Your task to perform on an android device: What is the news today? Image 0: 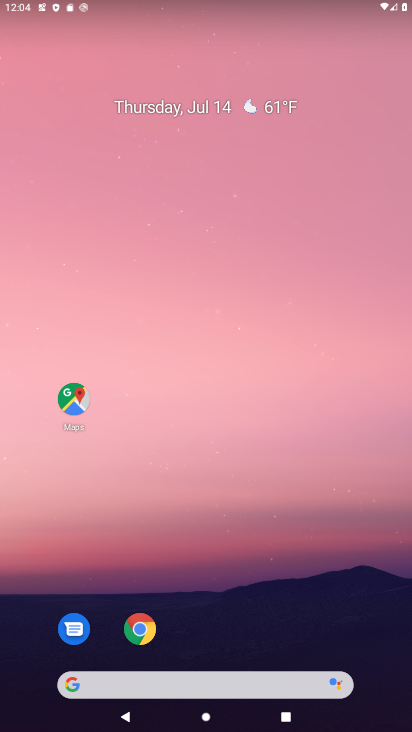
Step 0: click (249, 562)
Your task to perform on an android device: What is the news today? Image 1: 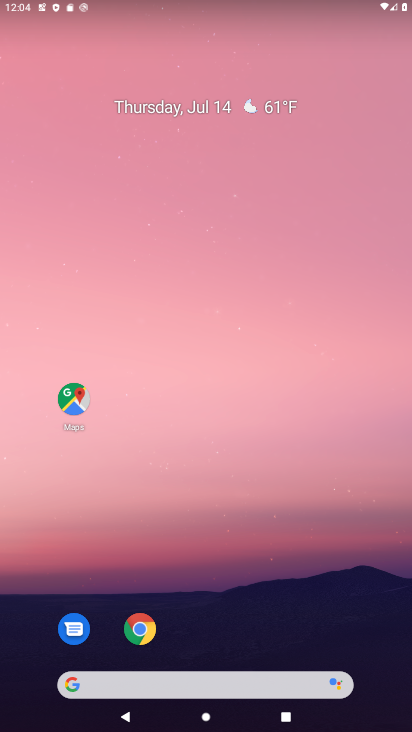
Step 1: drag from (20, 284) to (339, 291)
Your task to perform on an android device: What is the news today? Image 2: 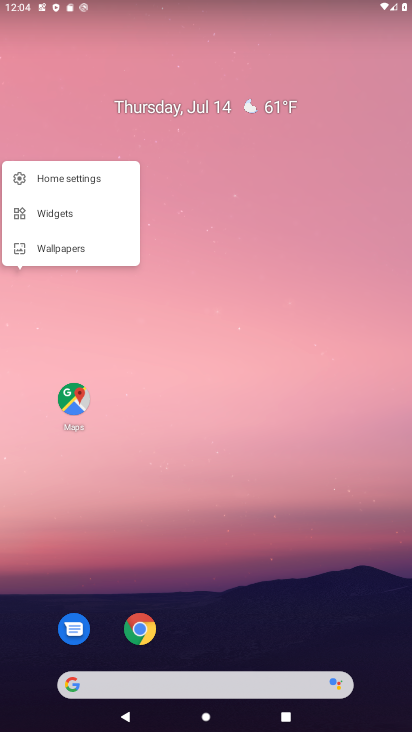
Step 2: click (194, 387)
Your task to perform on an android device: What is the news today? Image 3: 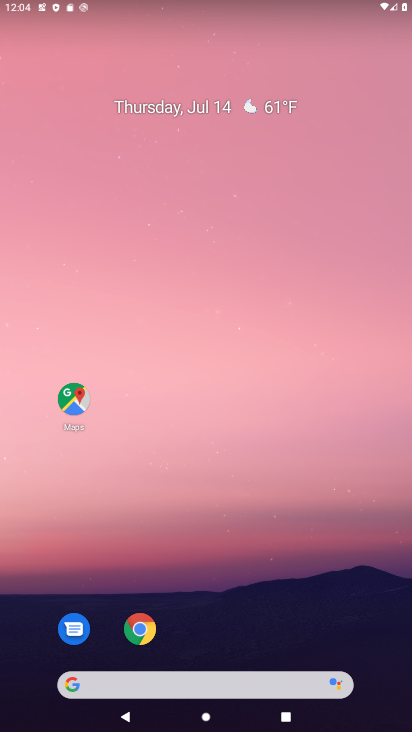
Step 3: drag from (12, 269) to (408, 266)
Your task to perform on an android device: What is the news today? Image 4: 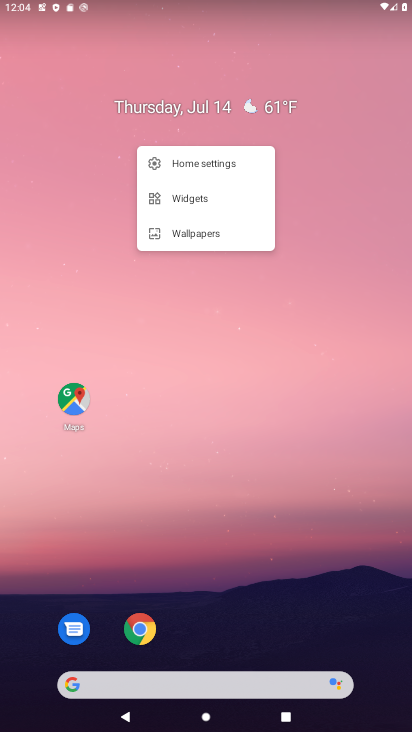
Step 4: click (253, 285)
Your task to perform on an android device: What is the news today? Image 5: 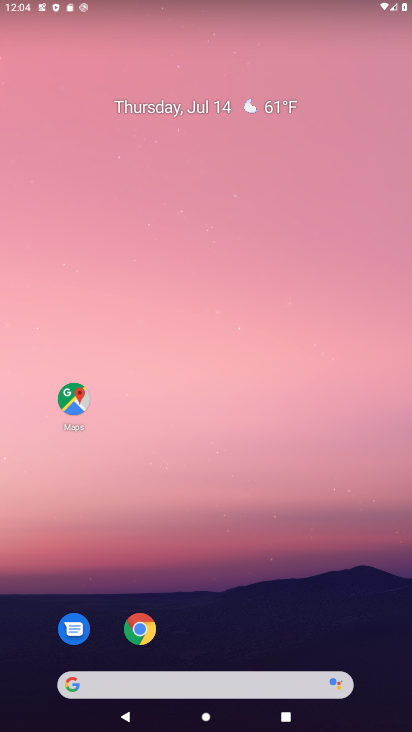
Step 5: task complete